Your task to perform on an android device: Is it going to rain this weekend? Image 0: 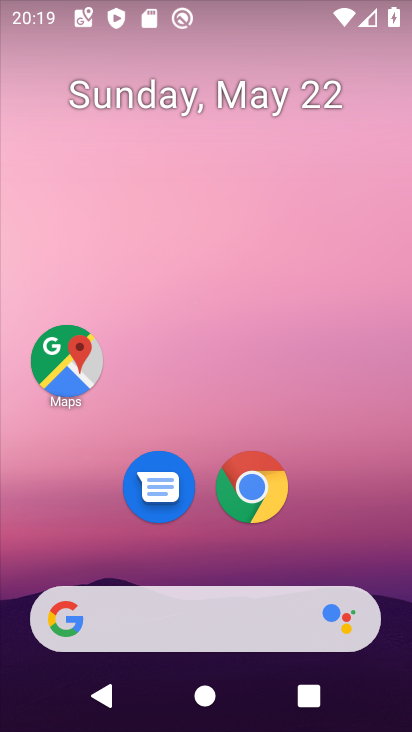
Step 0: click (165, 633)
Your task to perform on an android device: Is it going to rain this weekend? Image 1: 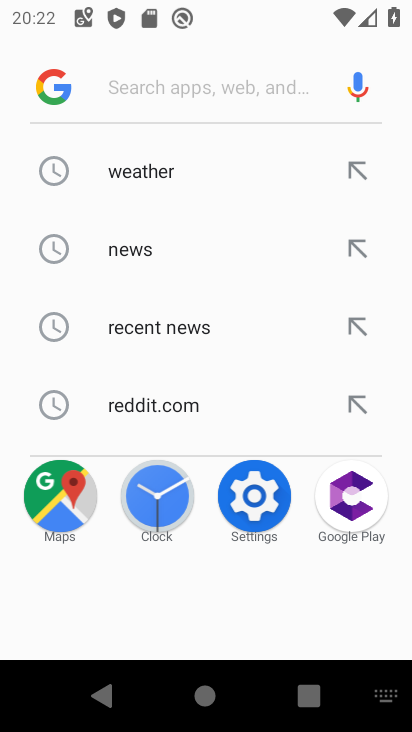
Step 1: click (139, 178)
Your task to perform on an android device: Is it going to rain this weekend? Image 2: 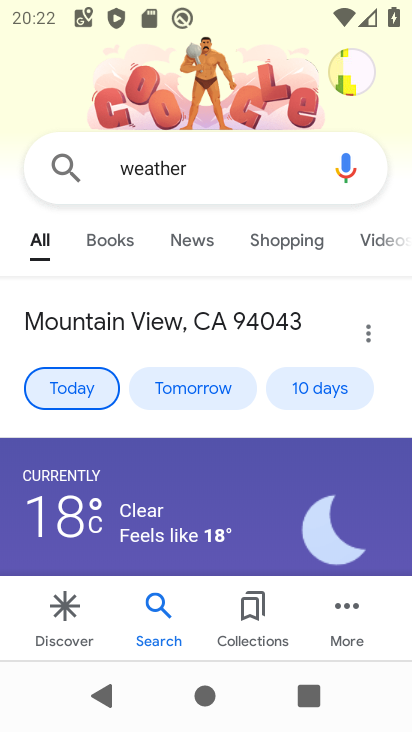
Step 2: click (321, 400)
Your task to perform on an android device: Is it going to rain this weekend? Image 3: 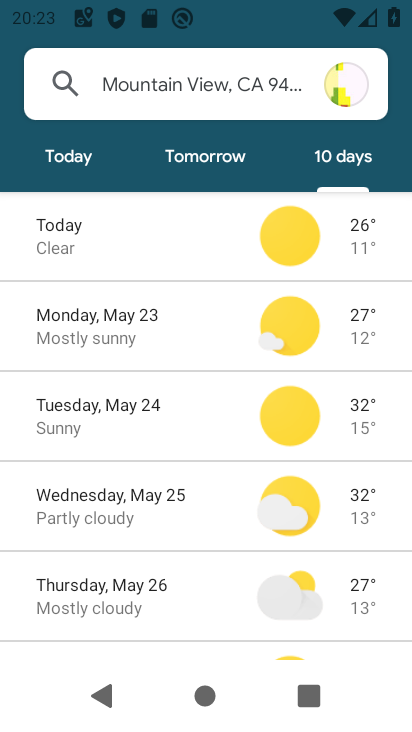
Step 3: task complete